Your task to perform on an android device: Go to eBay Image 0: 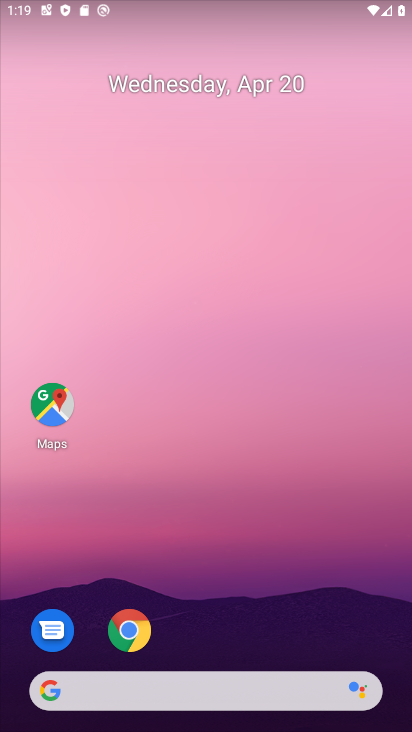
Step 0: drag from (326, 493) to (317, 145)
Your task to perform on an android device: Go to eBay Image 1: 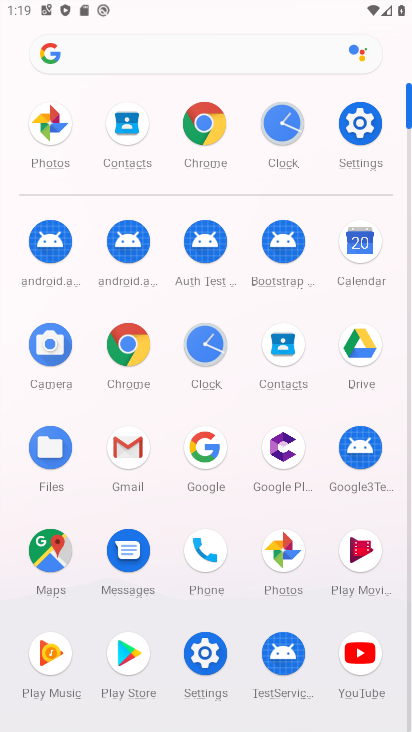
Step 1: click (120, 360)
Your task to perform on an android device: Go to eBay Image 2: 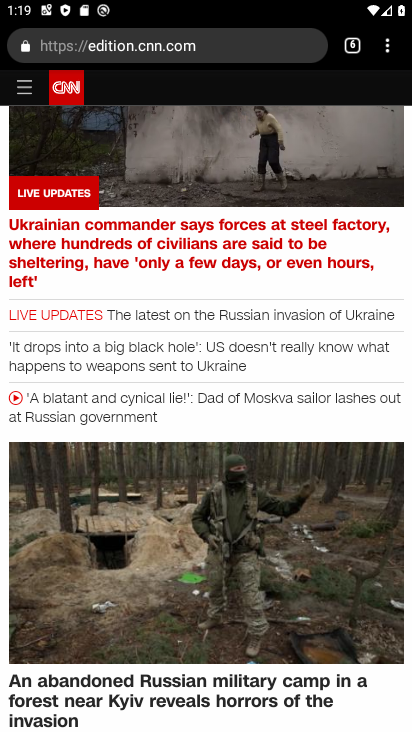
Step 2: click (359, 54)
Your task to perform on an android device: Go to eBay Image 3: 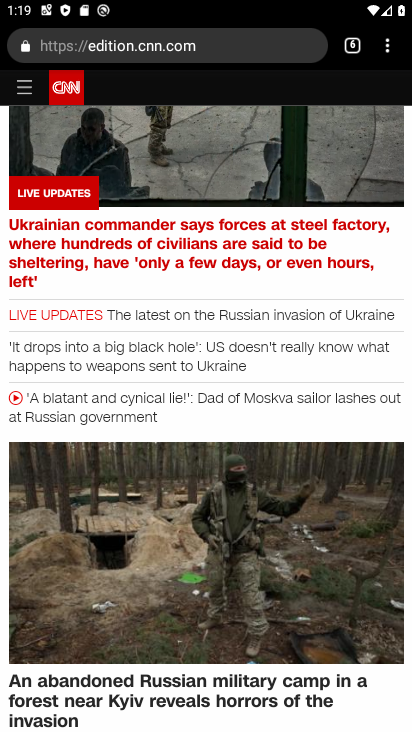
Step 3: click (349, 44)
Your task to perform on an android device: Go to eBay Image 4: 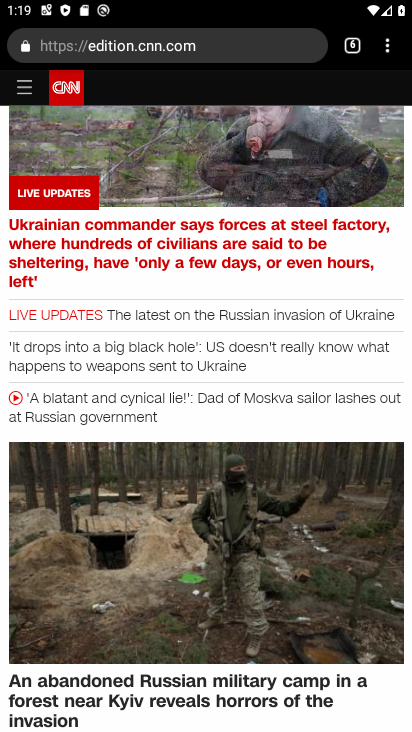
Step 4: click (356, 52)
Your task to perform on an android device: Go to eBay Image 5: 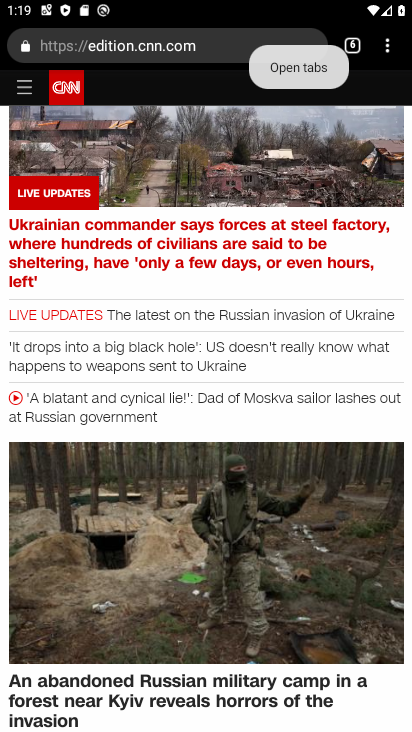
Step 5: click (348, 40)
Your task to perform on an android device: Go to eBay Image 6: 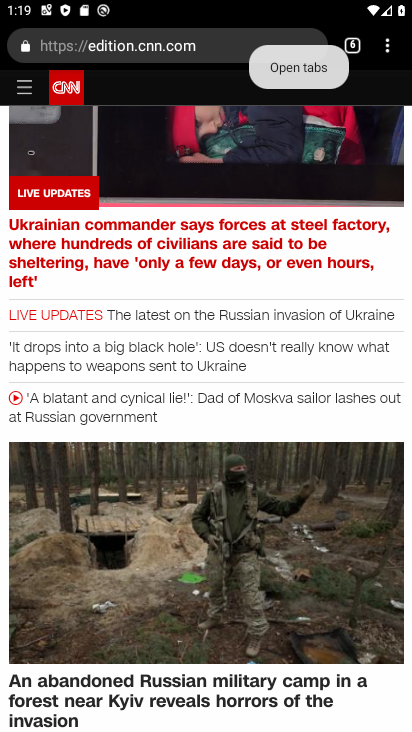
Step 6: click (348, 40)
Your task to perform on an android device: Go to eBay Image 7: 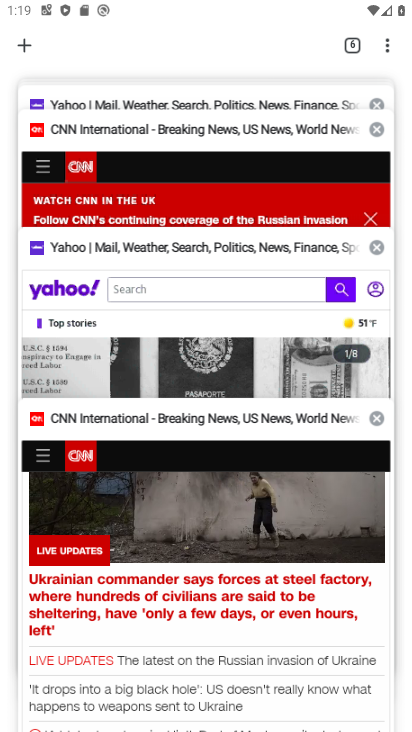
Step 7: click (25, 41)
Your task to perform on an android device: Go to eBay Image 8: 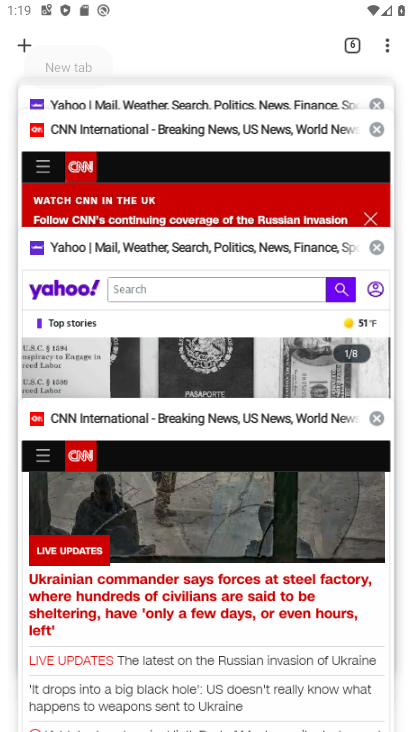
Step 8: click (21, 43)
Your task to perform on an android device: Go to eBay Image 9: 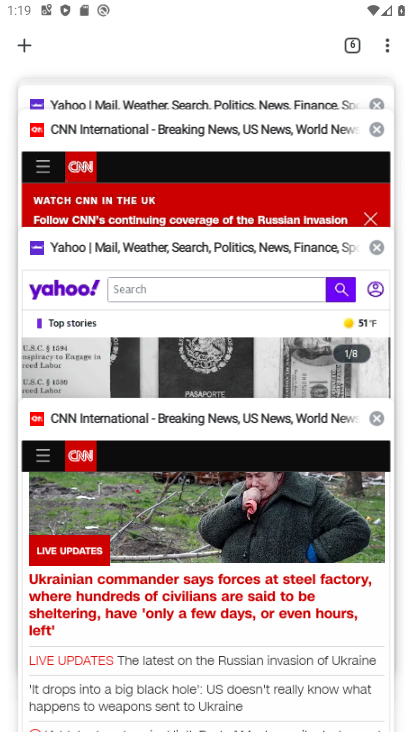
Step 9: click (27, 45)
Your task to perform on an android device: Go to eBay Image 10: 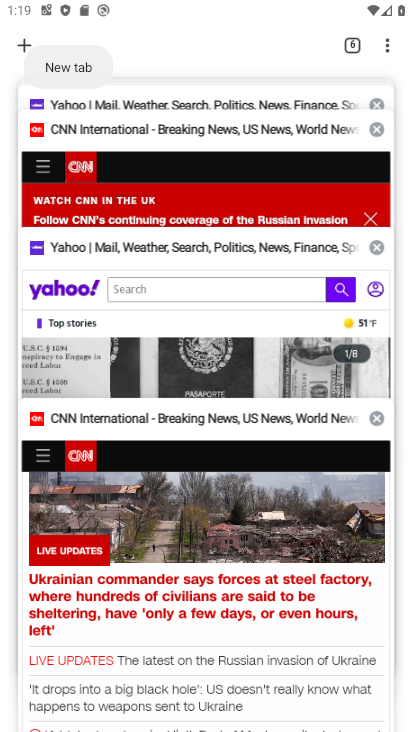
Step 10: click (20, 42)
Your task to perform on an android device: Go to eBay Image 11: 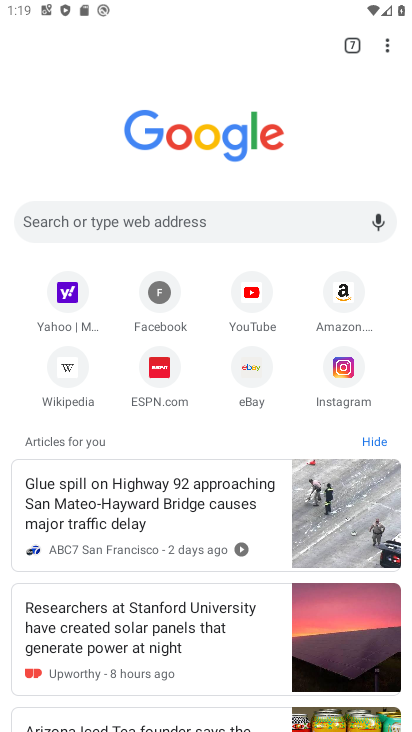
Step 11: click (139, 218)
Your task to perform on an android device: Go to eBay Image 12: 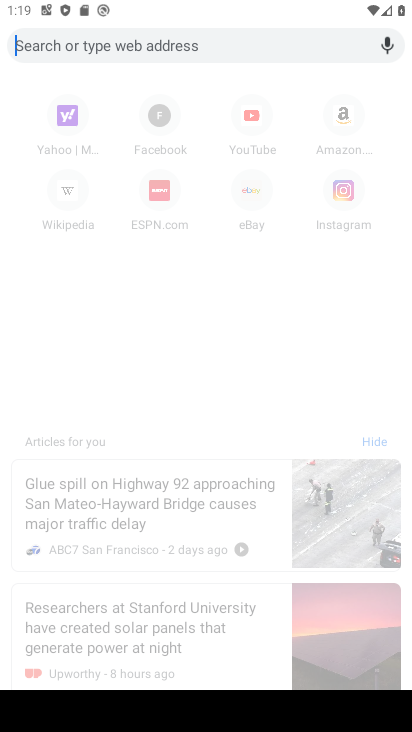
Step 12: type "ebay"
Your task to perform on an android device: Go to eBay Image 13: 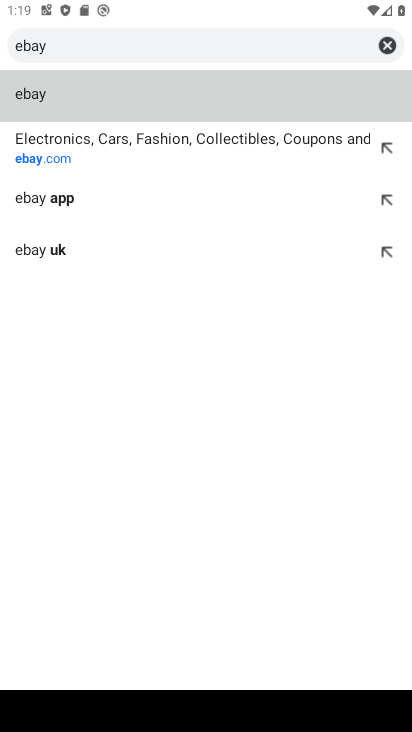
Step 13: click (147, 135)
Your task to perform on an android device: Go to eBay Image 14: 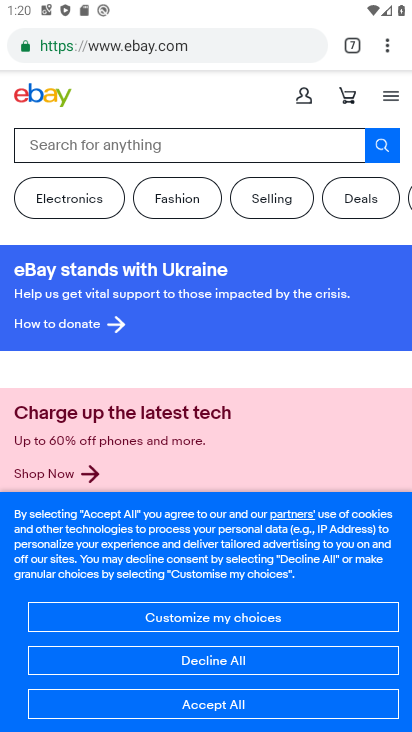
Step 14: task complete